Your task to perform on an android device: What's the weather today? Image 0: 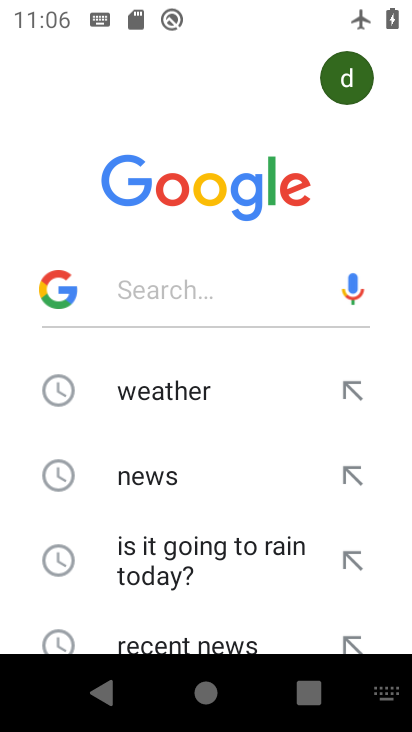
Step 0: press home button
Your task to perform on an android device: What's the weather today? Image 1: 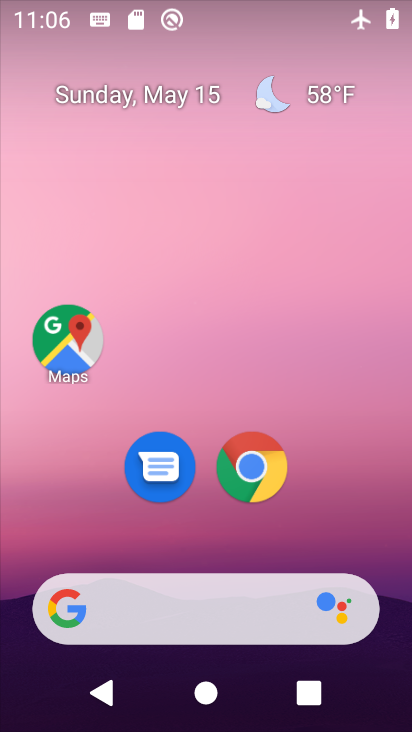
Step 1: click (328, 91)
Your task to perform on an android device: What's the weather today? Image 2: 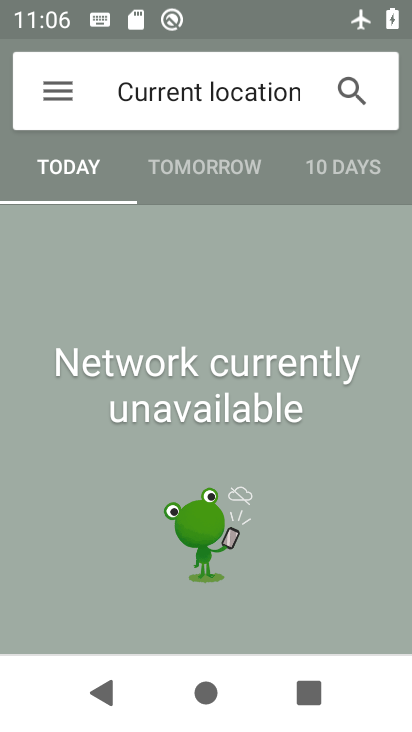
Step 2: drag from (272, 14) to (264, 684)
Your task to perform on an android device: What's the weather today? Image 3: 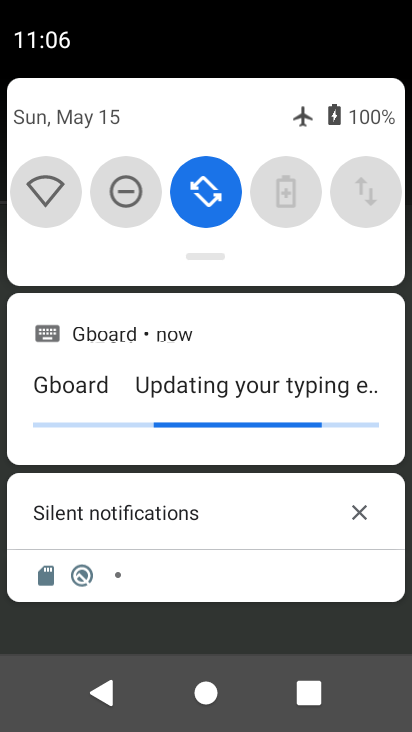
Step 3: drag from (288, 239) to (257, 719)
Your task to perform on an android device: What's the weather today? Image 4: 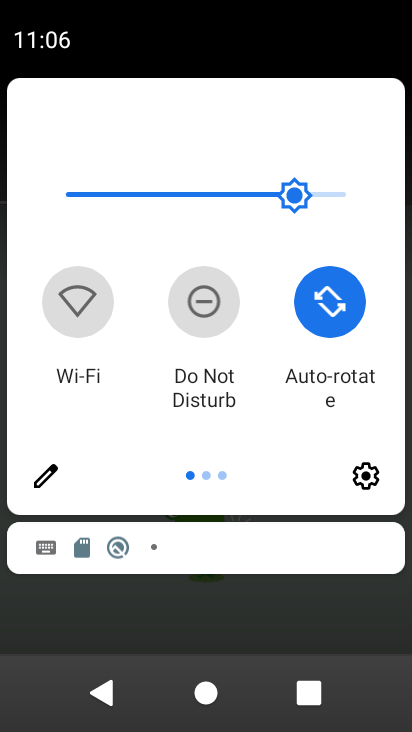
Step 4: drag from (349, 326) to (1, 366)
Your task to perform on an android device: What's the weather today? Image 5: 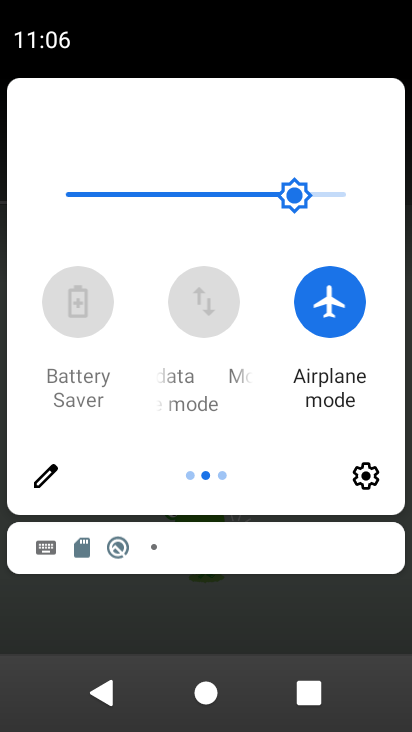
Step 5: click (336, 306)
Your task to perform on an android device: What's the weather today? Image 6: 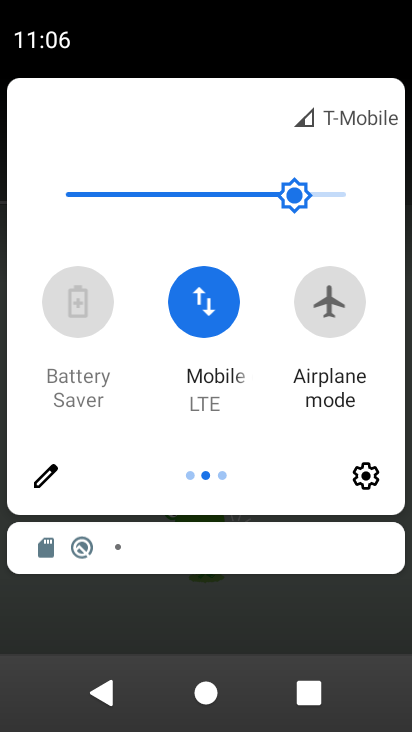
Step 6: task complete